Your task to perform on an android device: delete the emails in spam in the gmail app Image 0: 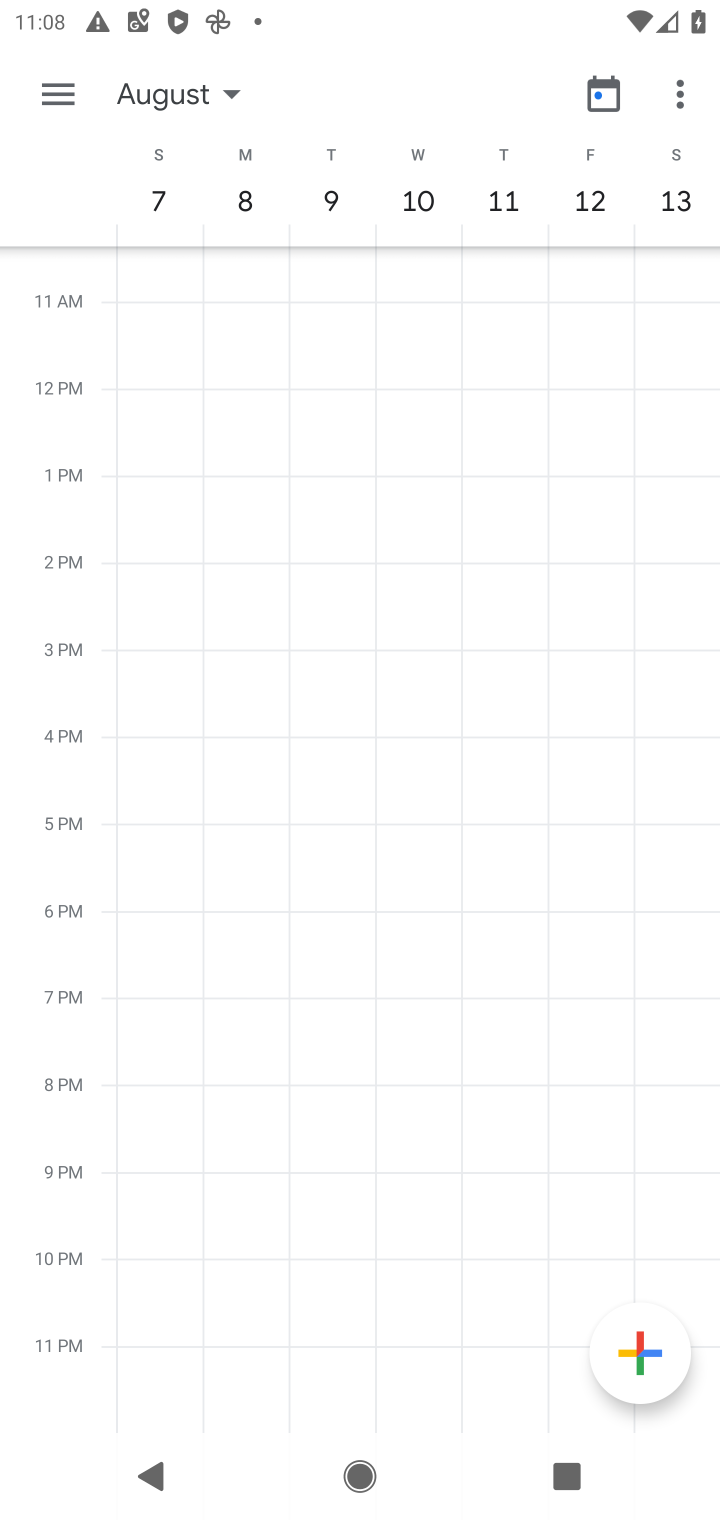
Step 0: press home button
Your task to perform on an android device: delete the emails in spam in the gmail app Image 1: 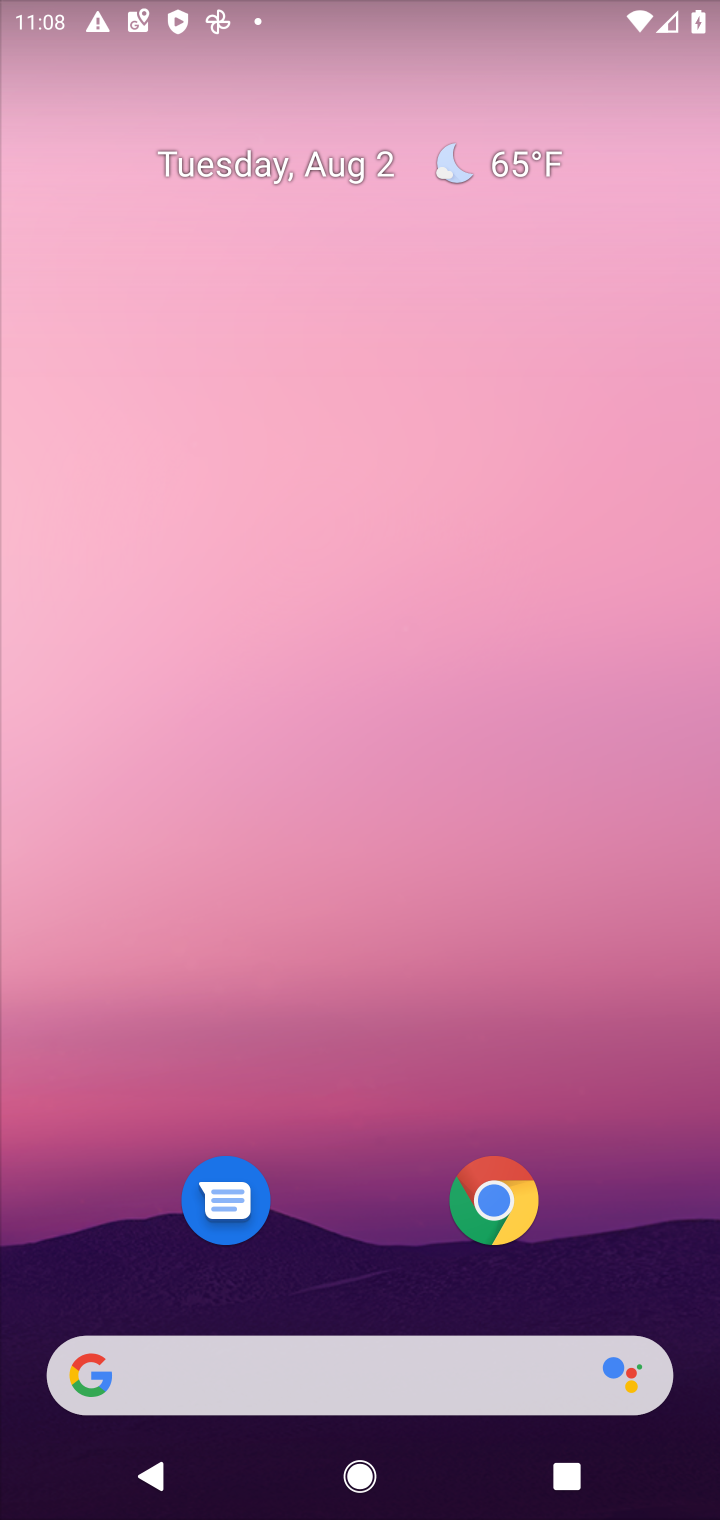
Step 1: drag from (684, 1311) to (613, 340)
Your task to perform on an android device: delete the emails in spam in the gmail app Image 2: 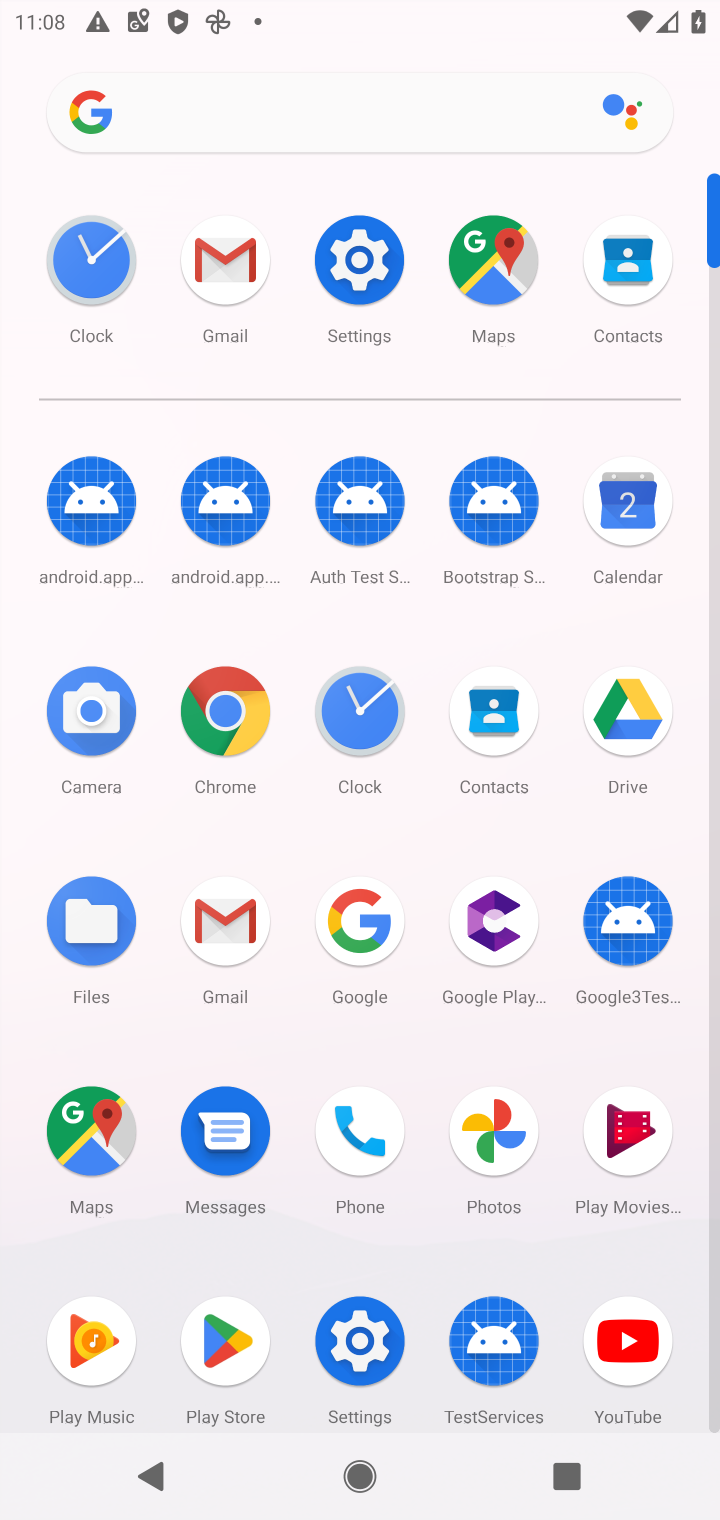
Step 2: click (217, 911)
Your task to perform on an android device: delete the emails in spam in the gmail app Image 3: 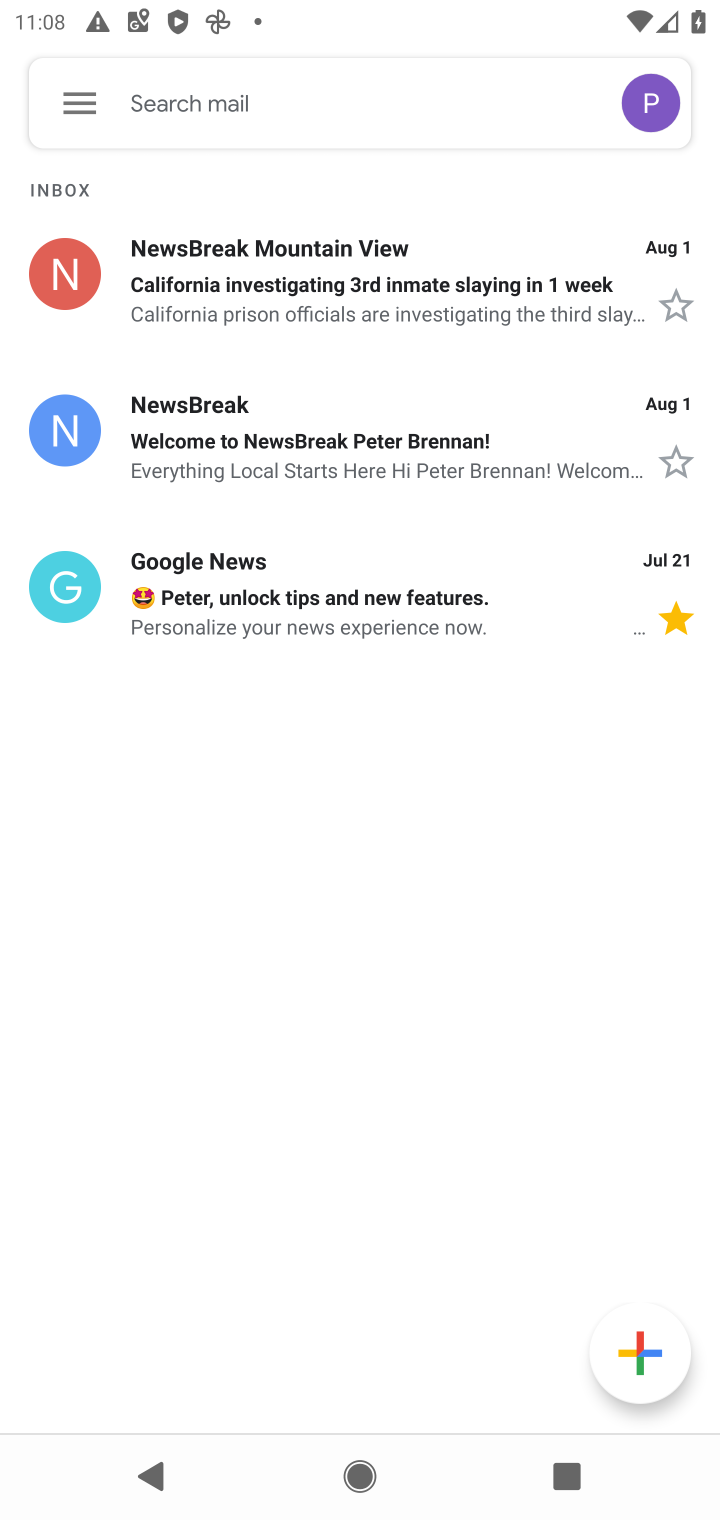
Step 3: click (66, 100)
Your task to perform on an android device: delete the emails in spam in the gmail app Image 4: 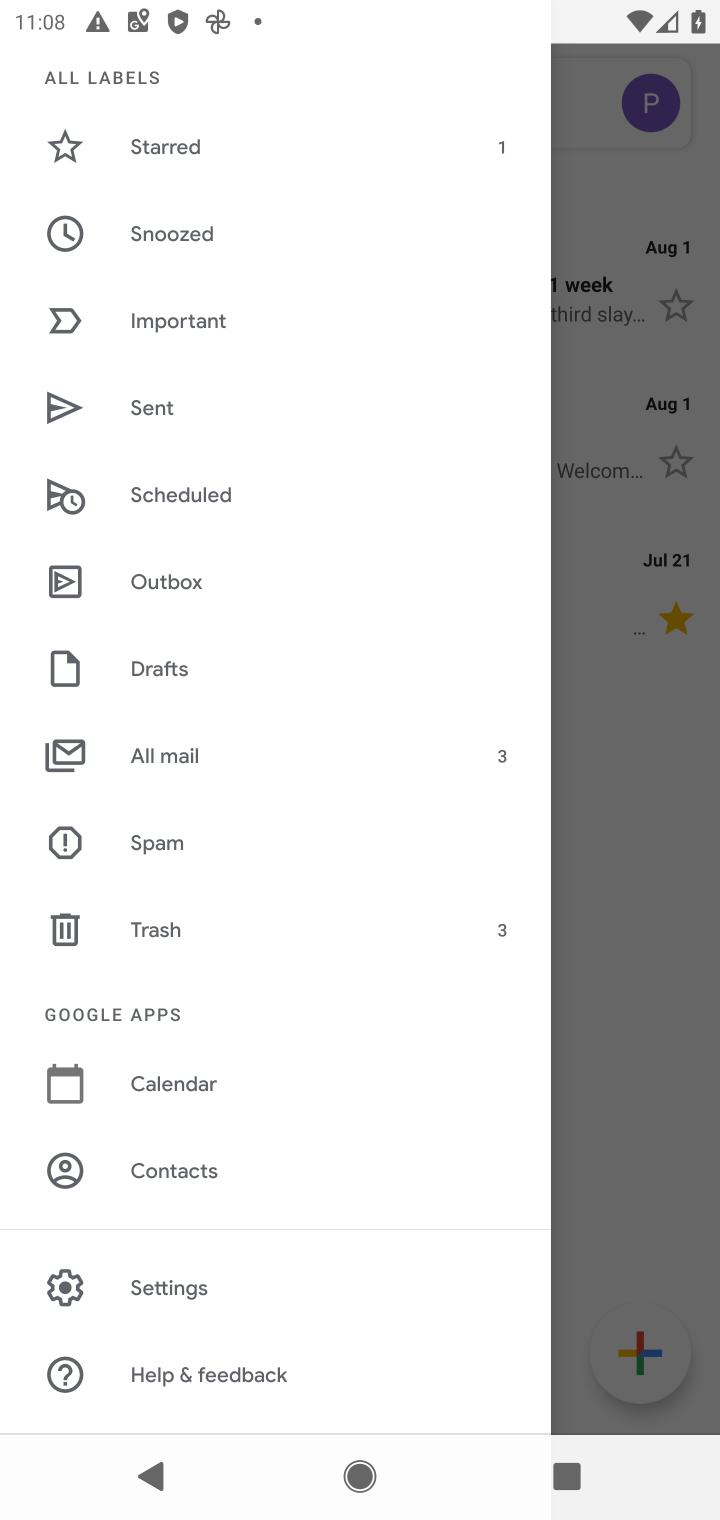
Step 4: click (152, 833)
Your task to perform on an android device: delete the emails in spam in the gmail app Image 5: 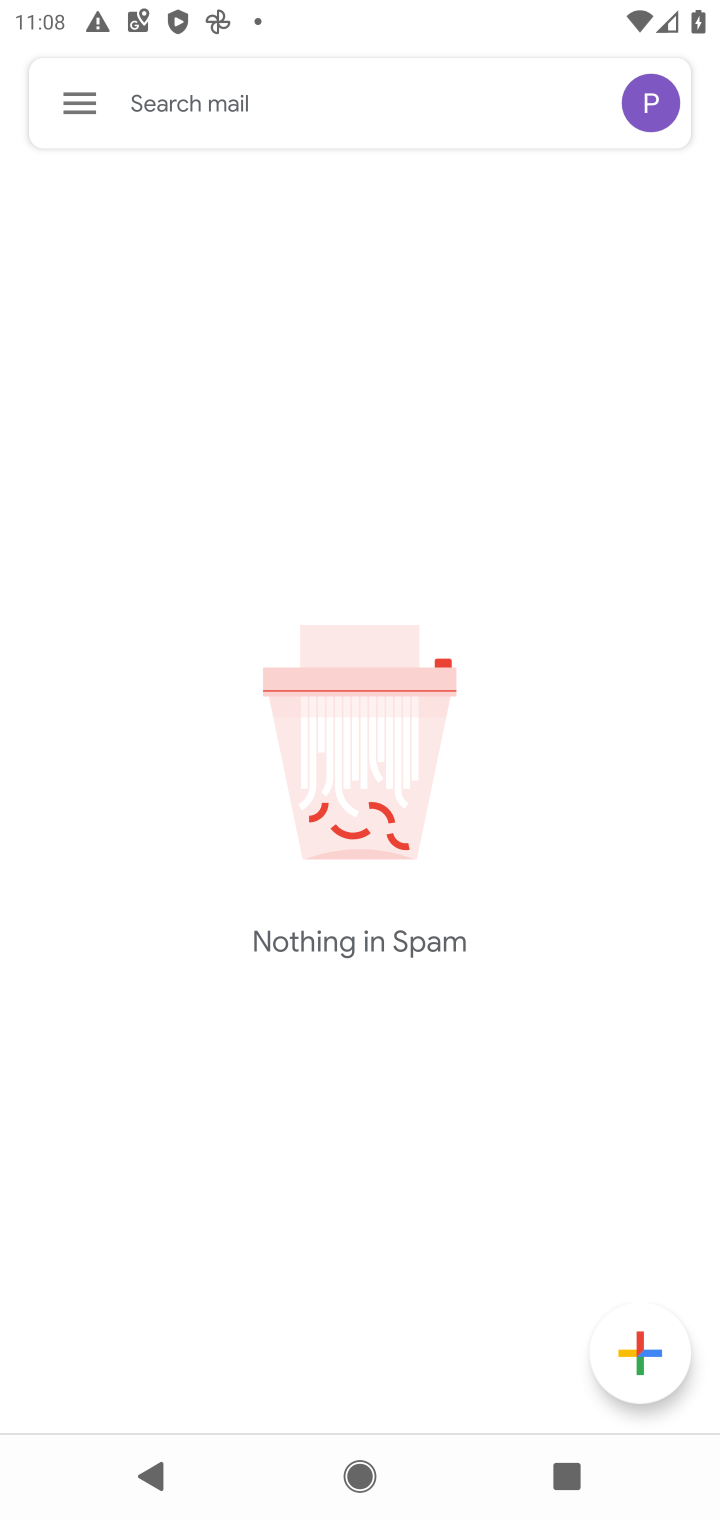
Step 5: task complete